Your task to perform on an android device: open a new tab in the chrome app Image 0: 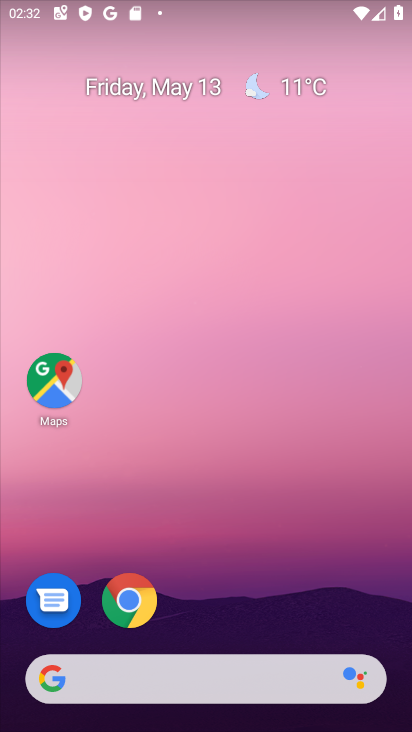
Step 0: drag from (157, 641) to (225, 242)
Your task to perform on an android device: open a new tab in the chrome app Image 1: 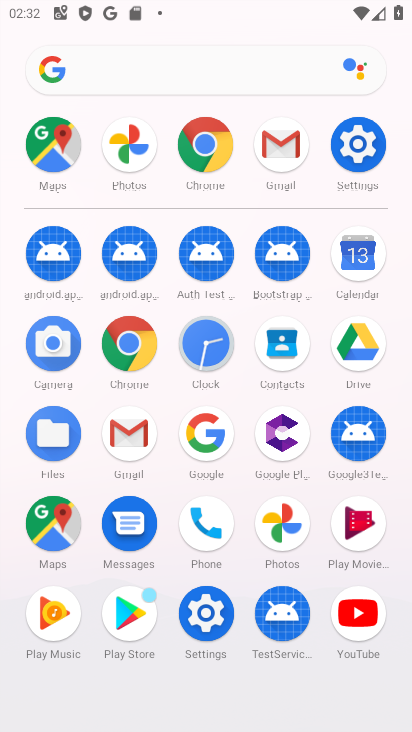
Step 1: click (197, 147)
Your task to perform on an android device: open a new tab in the chrome app Image 2: 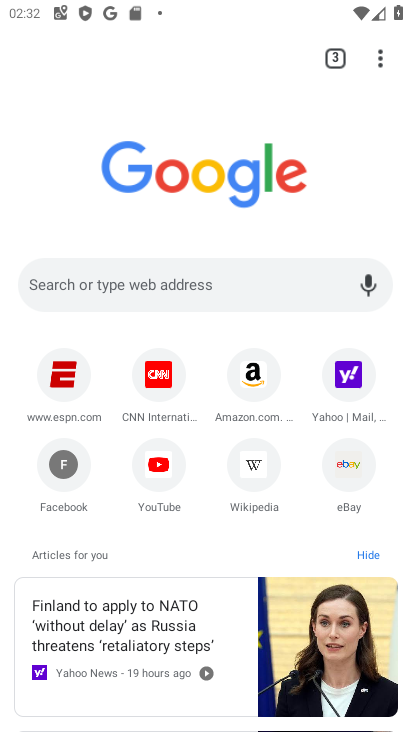
Step 2: click (326, 61)
Your task to perform on an android device: open a new tab in the chrome app Image 3: 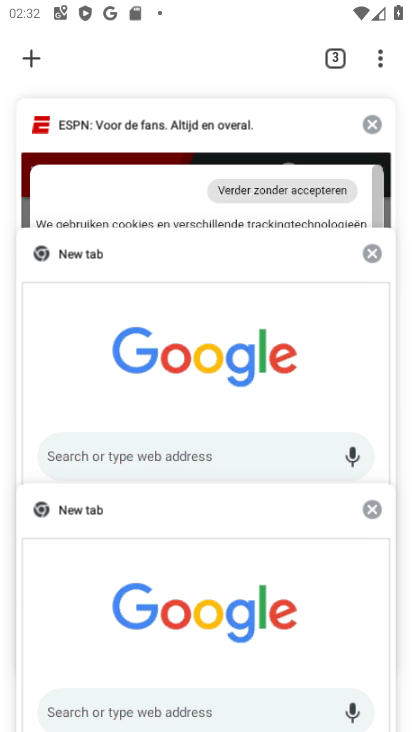
Step 3: click (27, 56)
Your task to perform on an android device: open a new tab in the chrome app Image 4: 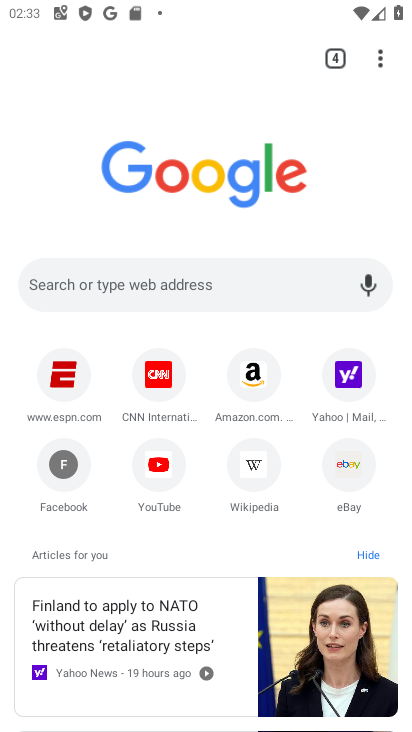
Step 4: task complete